Your task to perform on an android device: Add dell alienware to the cart on newegg.com, then select checkout. Image 0: 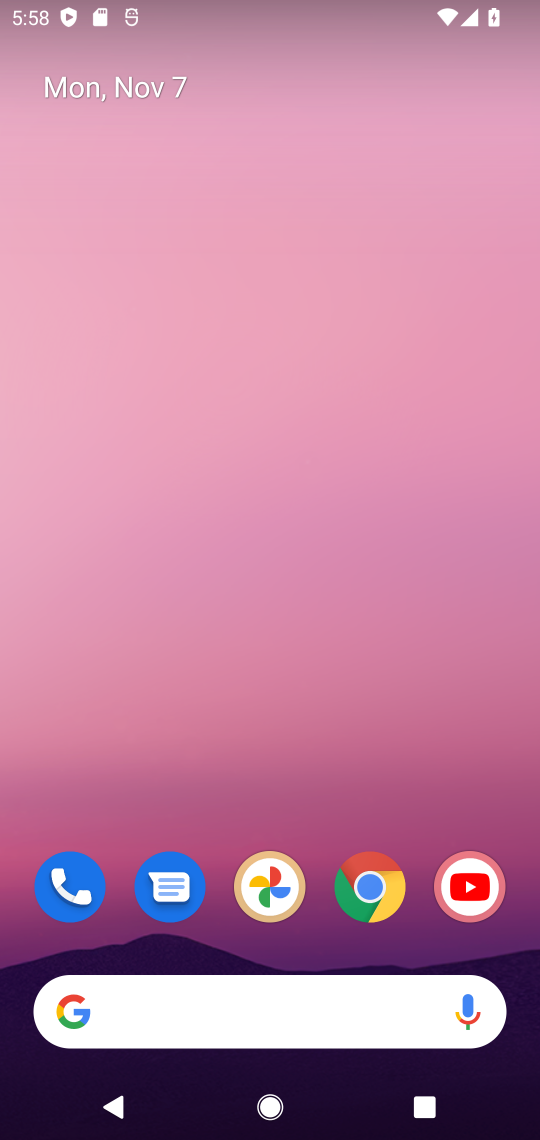
Step 0: click (360, 883)
Your task to perform on an android device: Add dell alienware to the cart on newegg.com, then select checkout. Image 1: 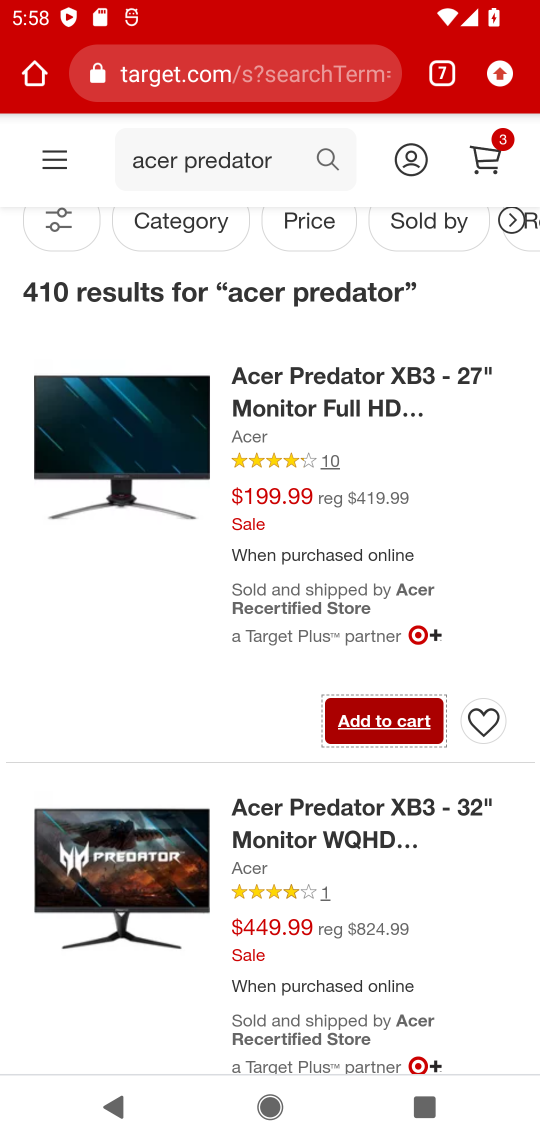
Step 1: click (439, 64)
Your task to perform on an android device: Add dell alienware to the cart on newegg.com, then select checkout. Image 2: 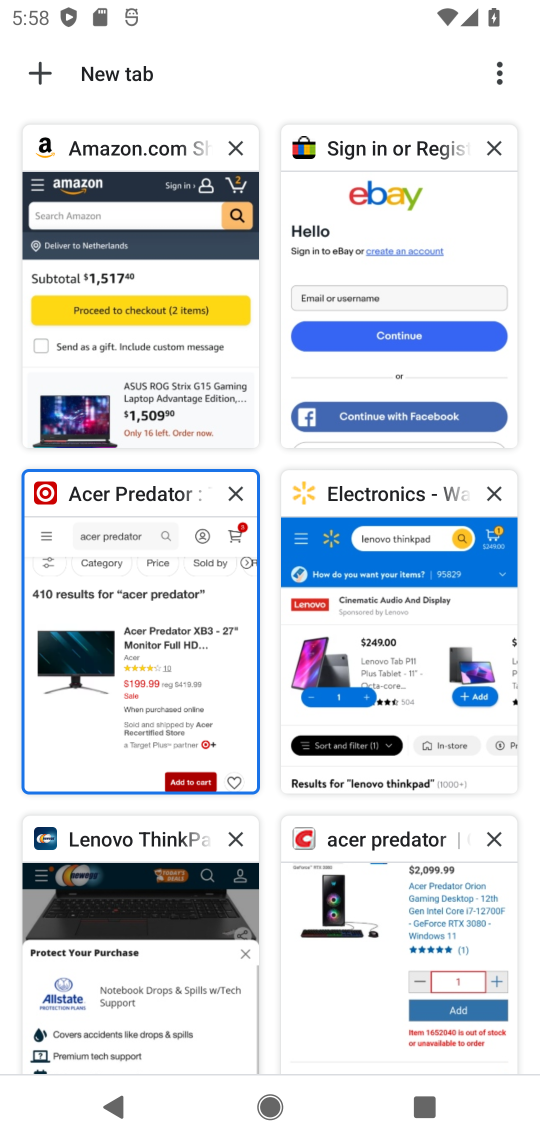
Step 2: click (137, 960)
Your task to perform on an android device: Add dell alienware to the cart on newegg.com, then select checkout. Image 3: 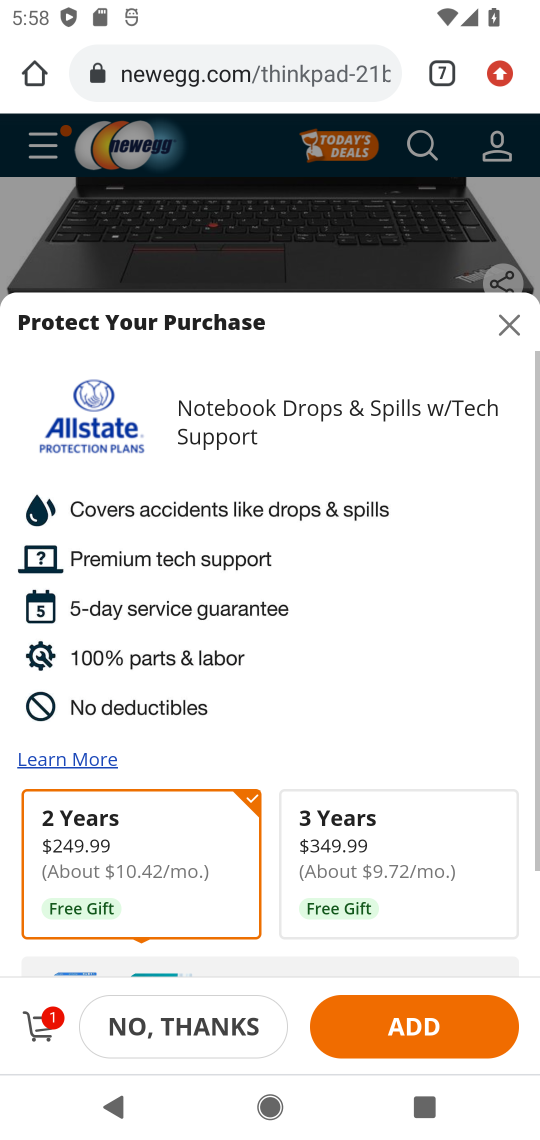
Step 3: click (505, 322)
Your task to perform on an android device: Add dell alienware to the cart on newegg.com, then select checkout. Image 4: 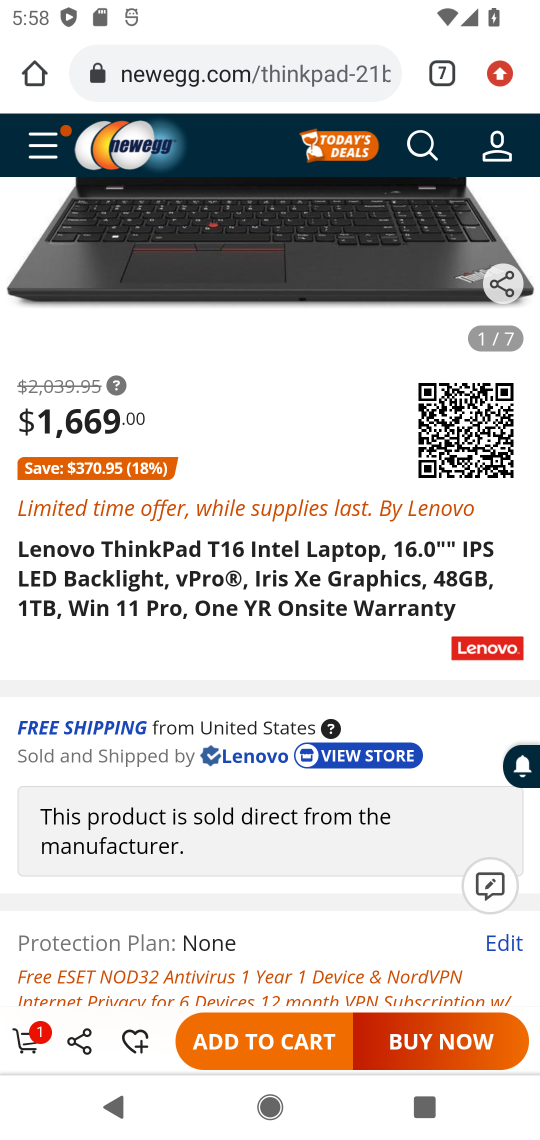
Step 4: drag from (381, 240) to (283, 1058)
Your task to perform on an android device: Add dell alienware to the cart on newegg.com, then select checkout. Image 5: 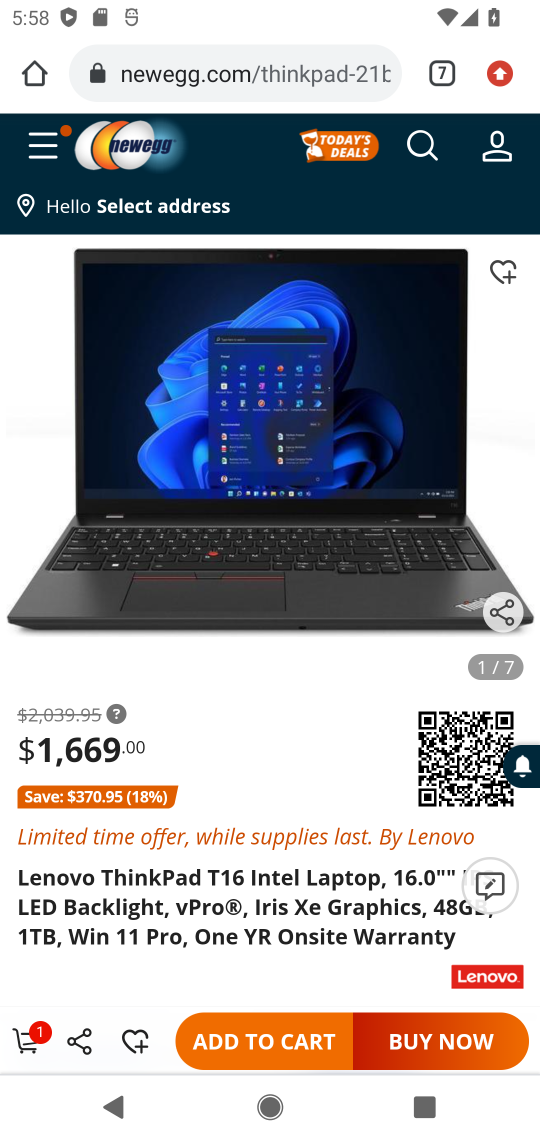
Step 5: click (421, 144)
Your task to perform on an android device: Add dell alienware to the cart on newegg.com, then select checkout. Image 6: 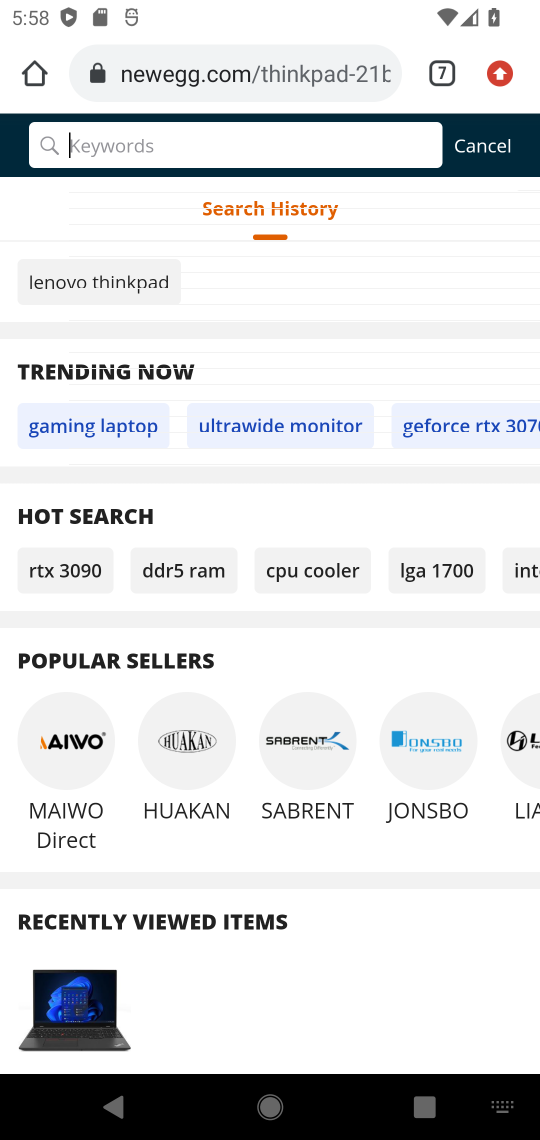
Step 6: type "dell alienware"
Your task to perform on an android device: Add dell alienware to the cart on newegg.com, then select checkout. Image 7: 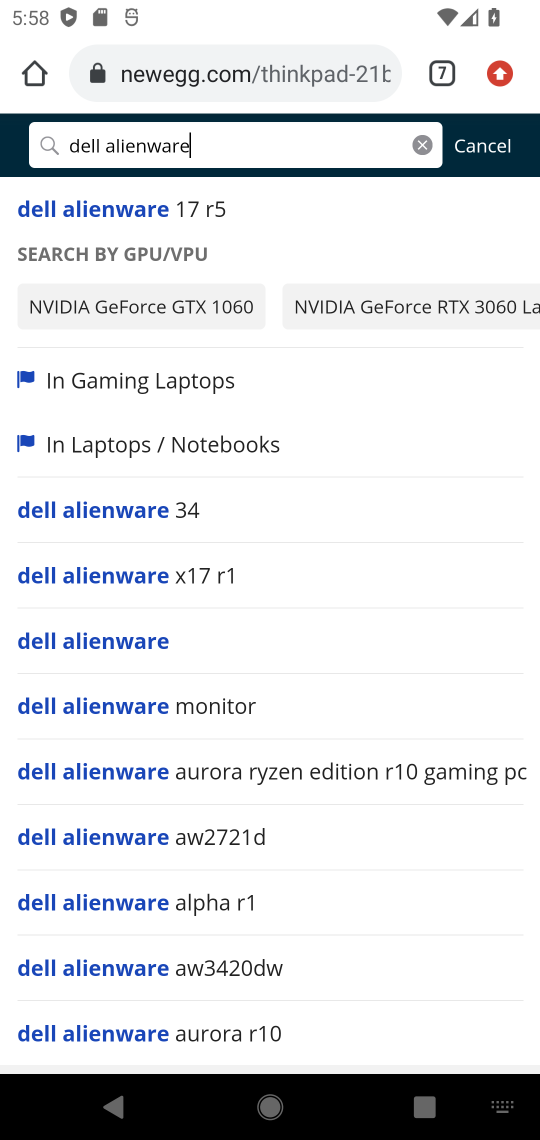
Step 7: click (140, 211)
Your task to perform on an android device: Add dell alienware to the cart on newegg.com, then select checkout. Image 8: 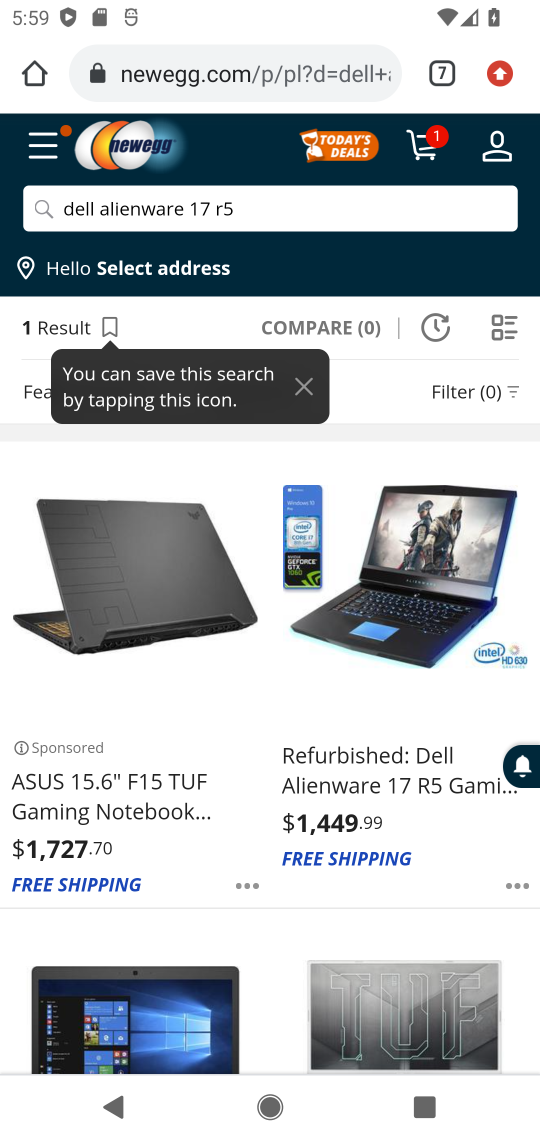
Step 8: click (295, 788)
Your task to perform on an android device: Add dell alienware to the cart on newegg.com, then select checkout. Image 9: 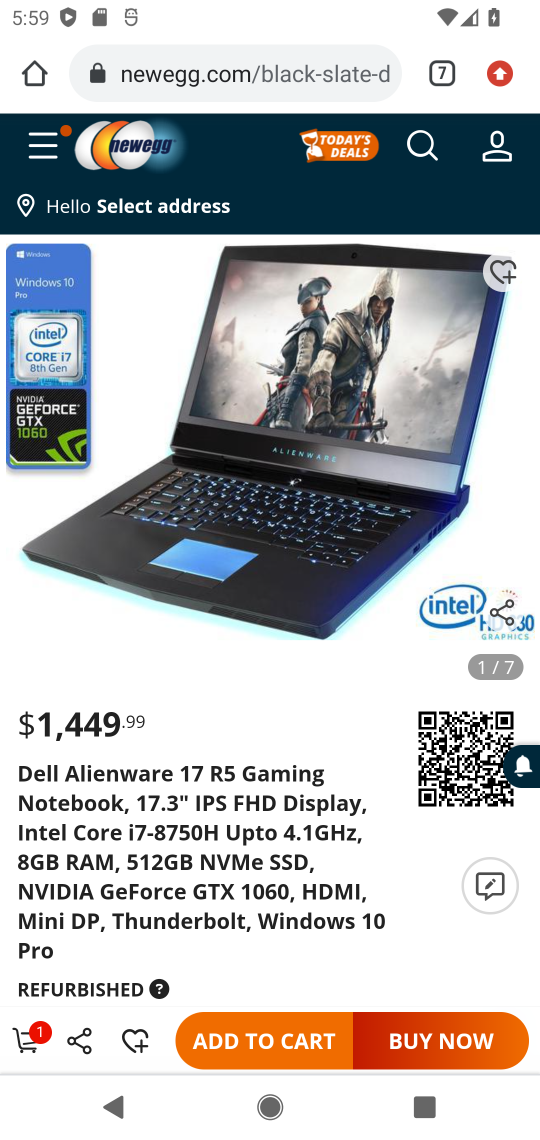
Step 9: click (273, 1048)
Your task to perform on an android device: Add dell alienware to the cart on newegg.com, then select checkout. Image 10: 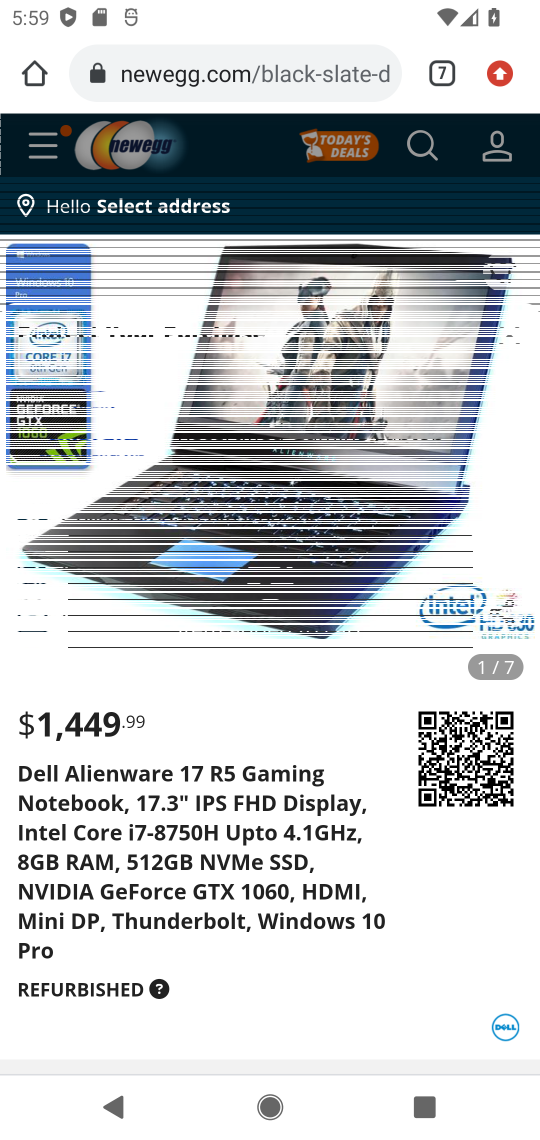
Step 10: click (146, 1037)
Your task to perform on an android device: Add dell alienware to the cart on newegg.com, then select checkout. Image 11: 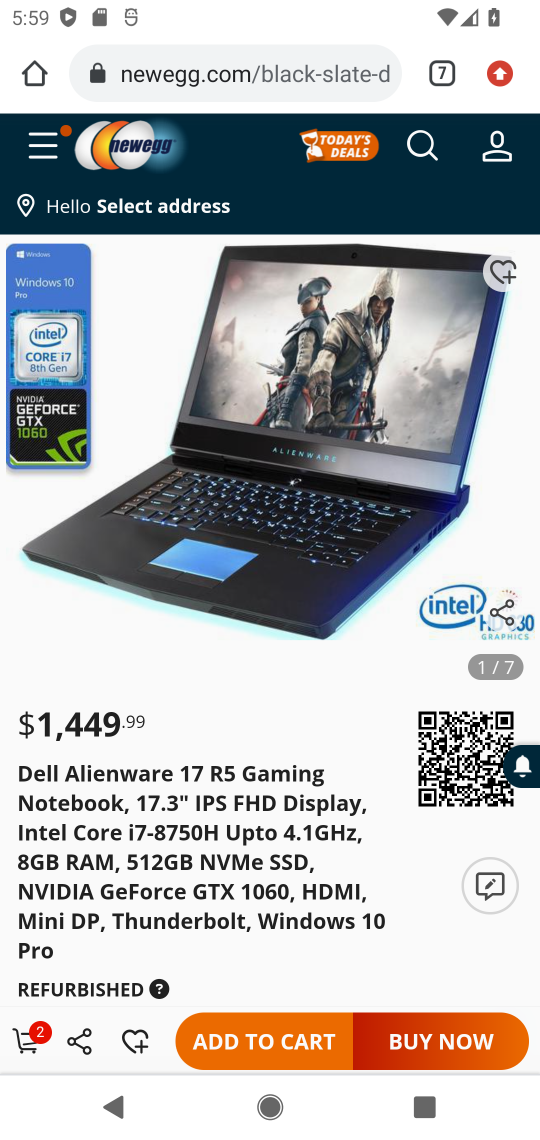
Step 11: click (37, 1023)
Your task to perform on an android device: Add dell alienware to the cart on newegg.com, then select checkout. Image 12: 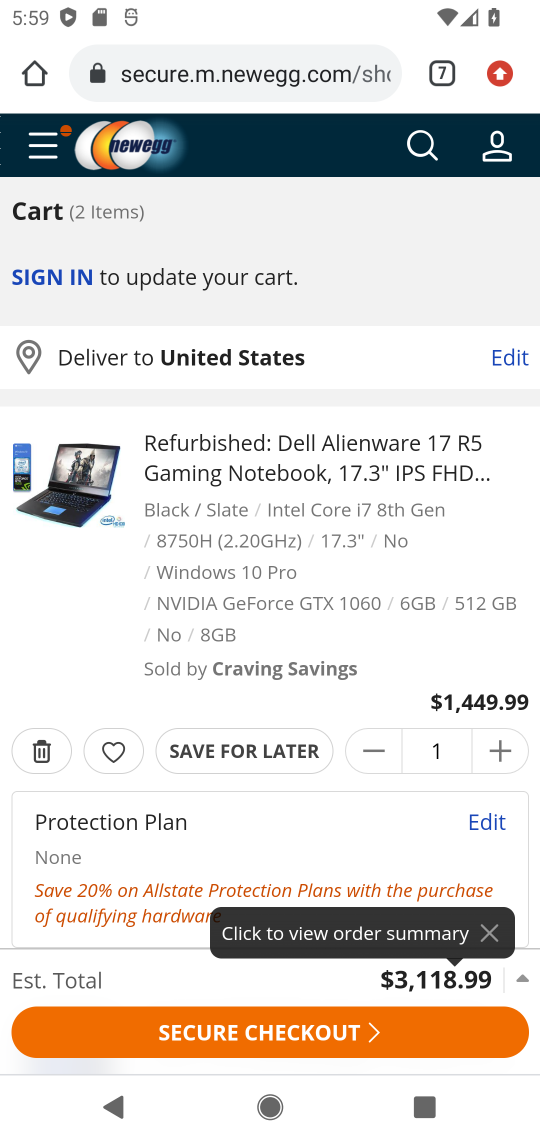
Step 12: click (205, 1029)
Your task to perform on an android device: Add dell alienware to the cart on newegg.com, then select checkout. Image 13: 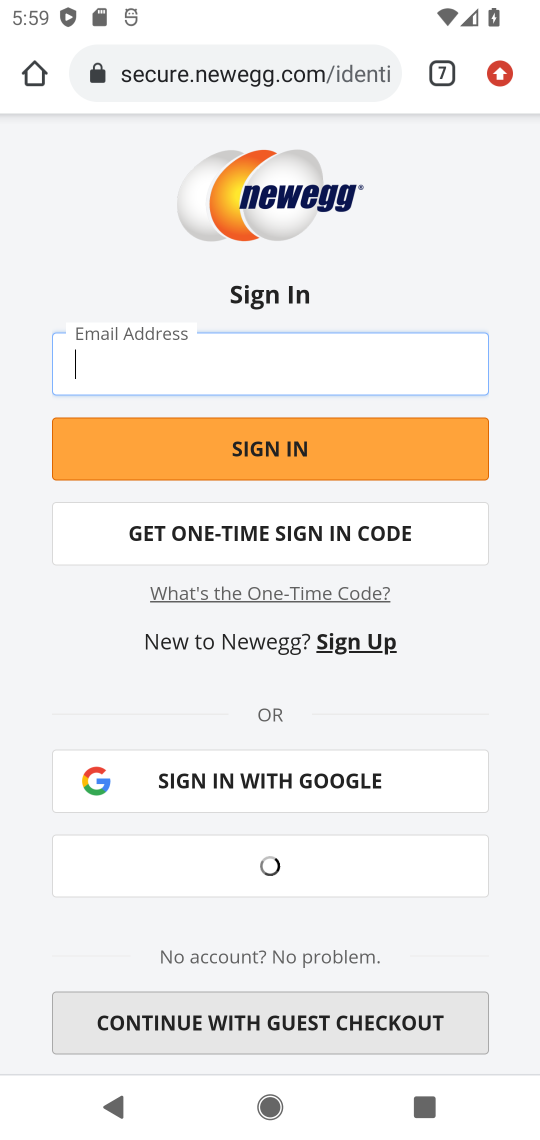
Step 13: task complete